Your task to perform on an android device: Open eBay Image 0: 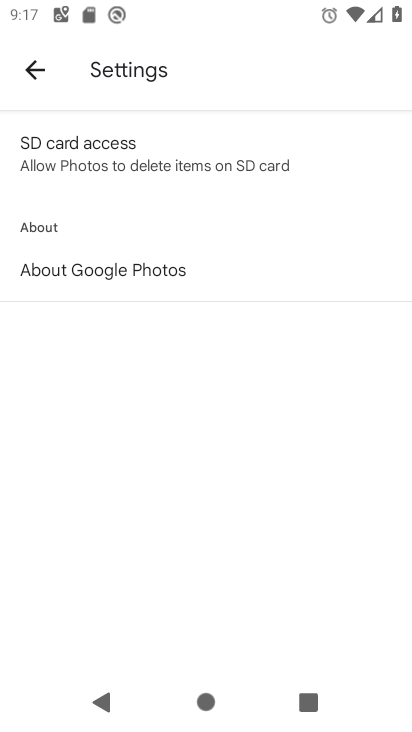
Step 0: press home button
Your task to perform on an android device: Open eBay Image 1: 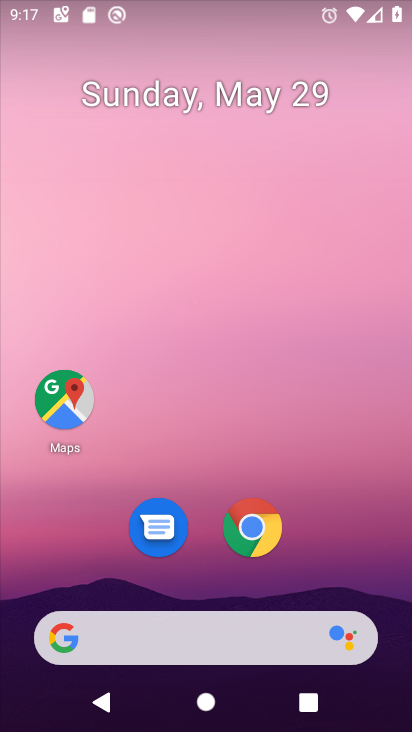
Step 1: click (252, 522)
Your task to perform on an android device: Open eBay Image 2: 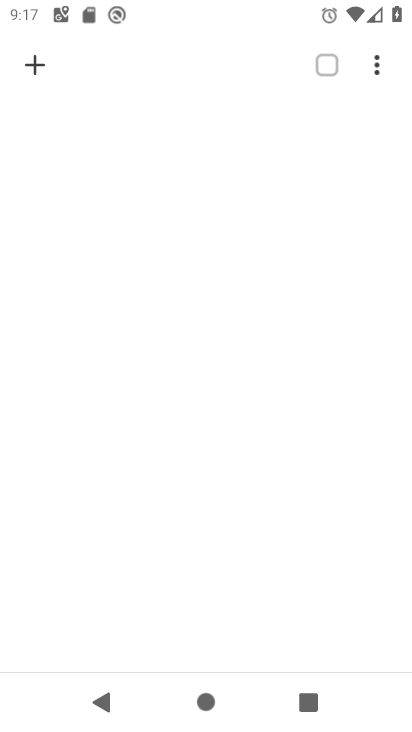
Step 2: click (43, 71)
Your task to perform on an android device: Open eBay Image 3: 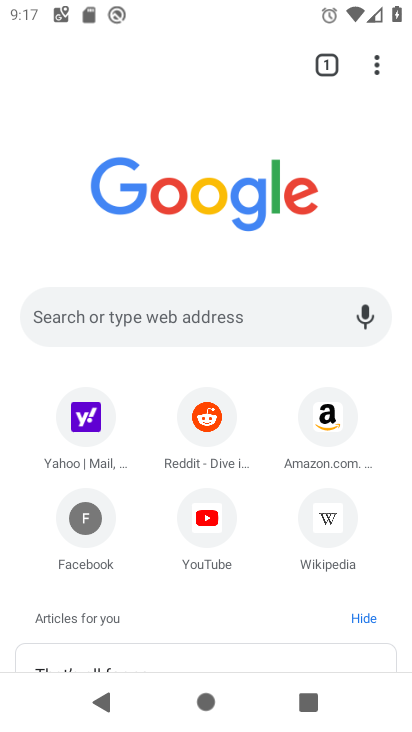
Step 3: drag from (199, 608) to (218, 190)
Your task to perform on an android device: Open eBay Image 4: 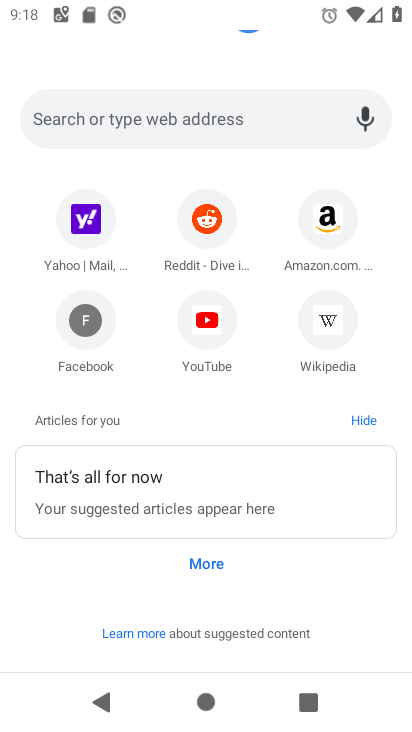
Step 4: click (113, 121)
Your task to perform on an android device: Open eBay Image 5: 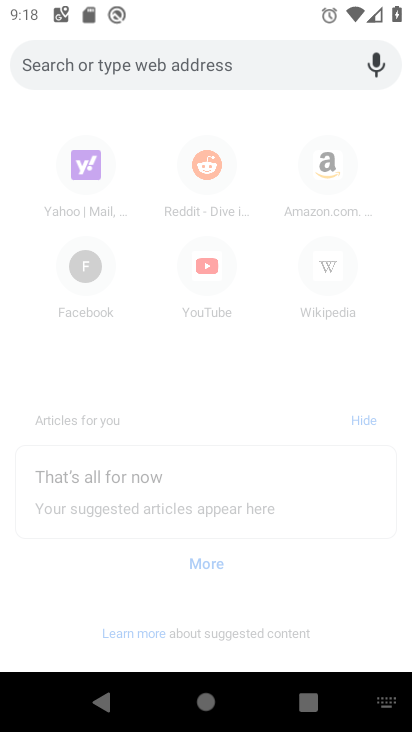
Step 5: type "ebay"
Your task to perform on an android device: Open eBay Image 6: 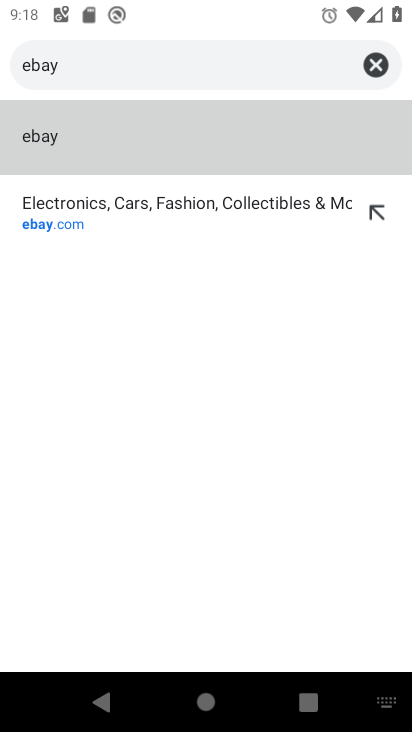
Step 6: click (111, 214)
Your task to perform on an android device: Open eBay Image 7: 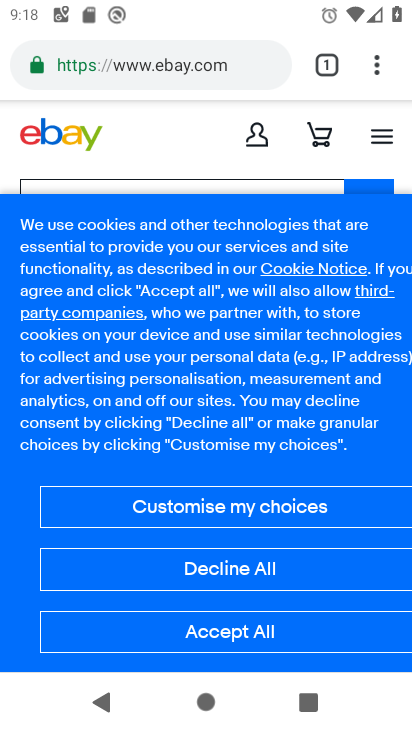
Step 7: click (229, 630)
Your task to perform on an android device: Open eBay Image 8: 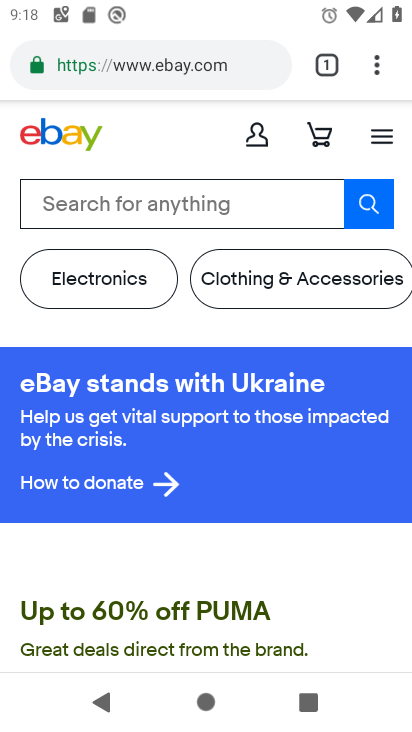
Step 8: task complete